Your task to perform on an android device: toggle sleep mode Image 0: 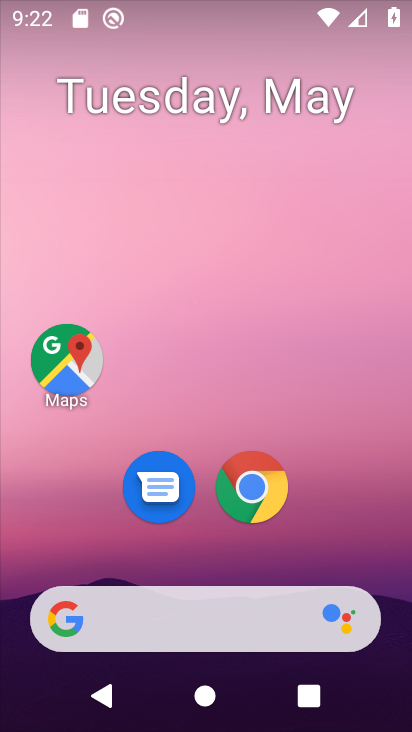
Step 0: press home button
Your task to perform on an android device: toggle sleep mode Image 1: 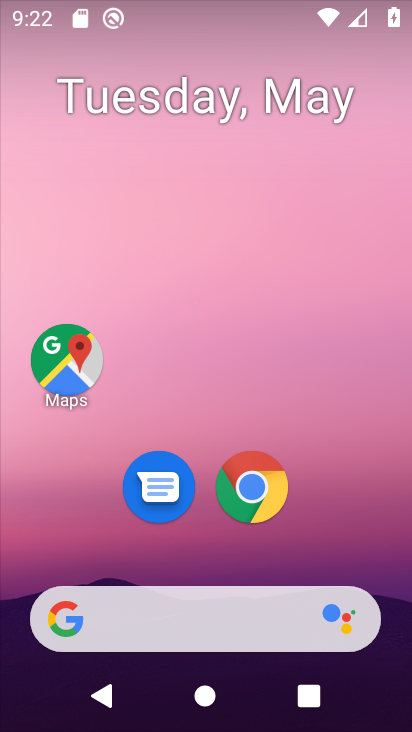
Step 1: drag from (180, 605) to (317, 61)
Your task to perform on an android device: toggle sleep mode Image 2: 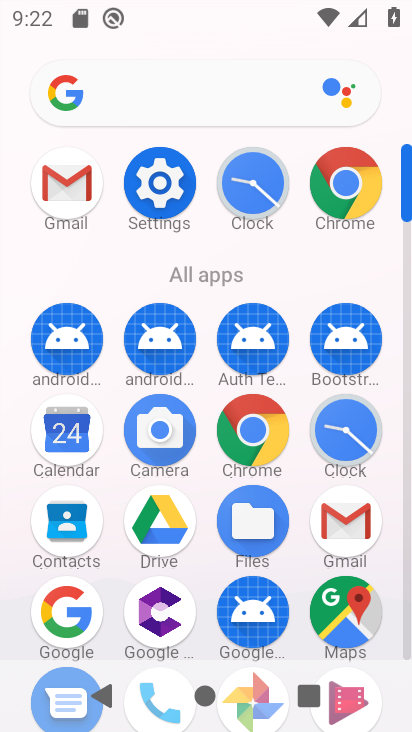
Step 2: click (160, 190)
Your task to perform on an android device: toggle sleep mode Image 3: 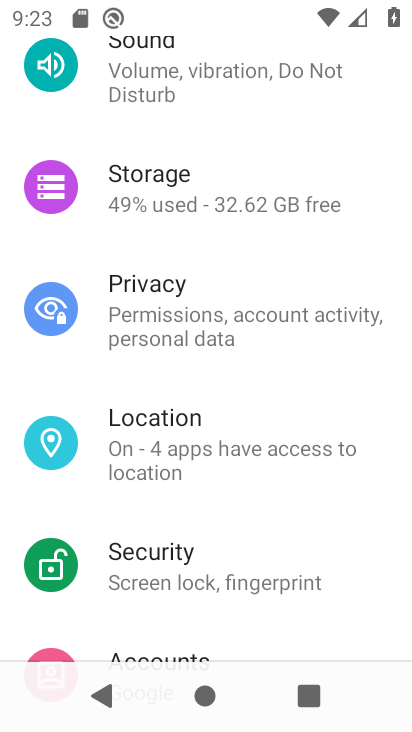
Step 3: drag from (241, 552) to (241, 602)
Your task to perform on an android device: toggle sleep mode Image 4: 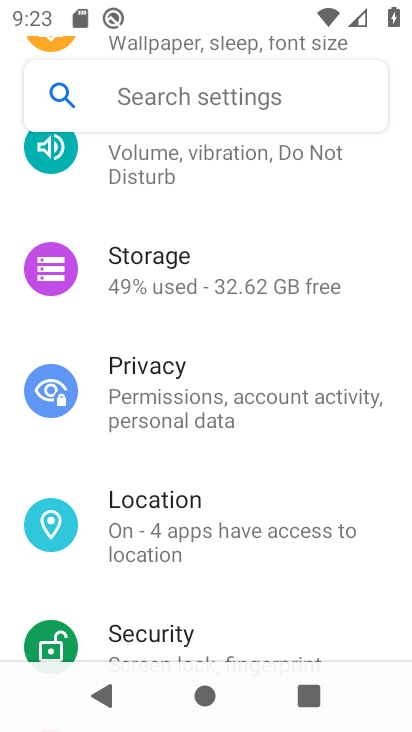
Step 4: drag from (307, 218) to (273, 551)
Your task to perform on an android device: toggle sleep mode Image 5: 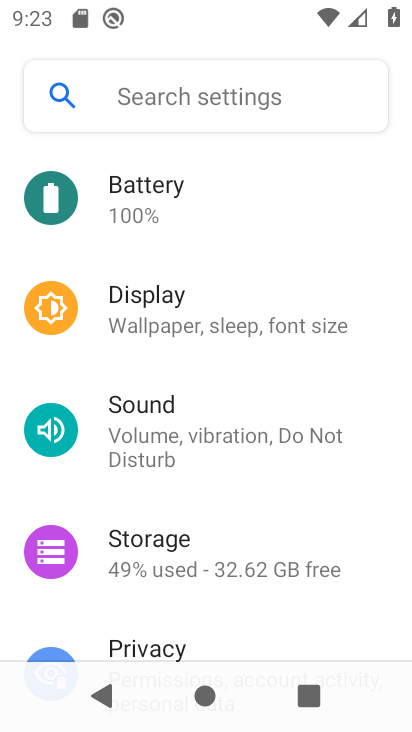
Step 5: click (223, 324)
Your task to perform on an android device: toggle sleep mode Image 6: 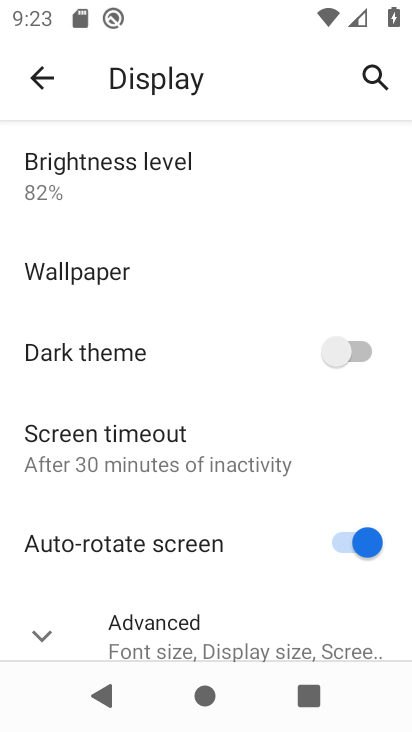
Step 6: drag from (233, 570) to (341, 214)
Your task to perform on an android device: toggle sleep mode Image 7: 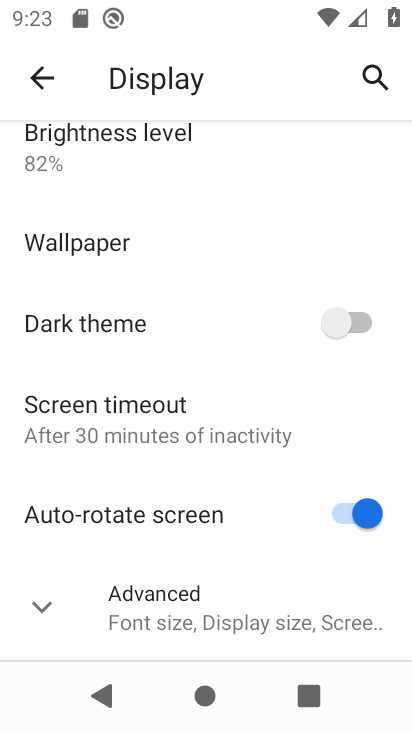
Step 7: click (45, 606)
Your task to perform on an android device: toggle sleep mode Image 8: 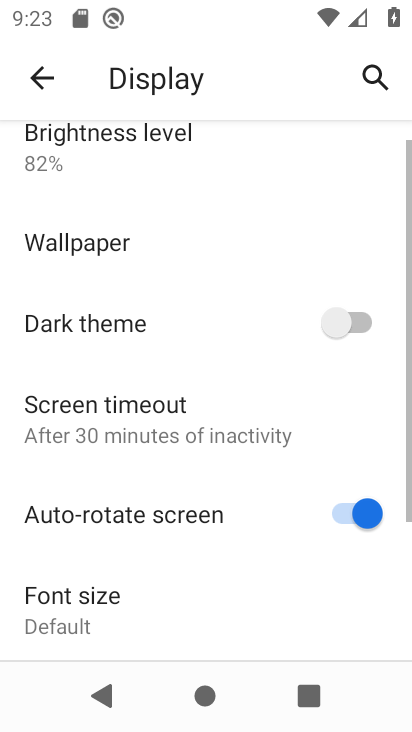
Step 8: task complete